Your task to perform on an android device: Open calendar and show me the third week of next month Image 0: 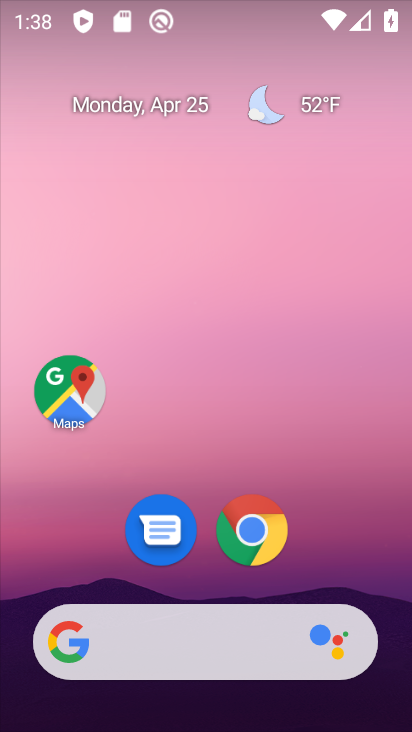
Step 0: drag from (380, 527) to (402, 128)
Your task to perform on an android device: Open calendar and show me the third week of next month Image 1: 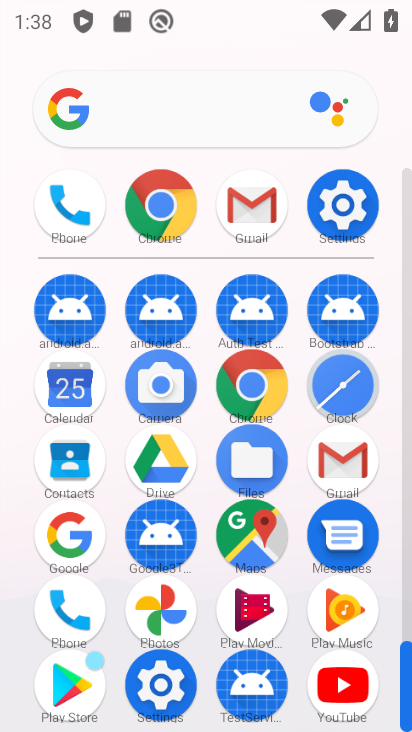
Step 1: click (79, 394)
Your task to perform on an android device: Open calendar and show me the third week of next month Image 2: 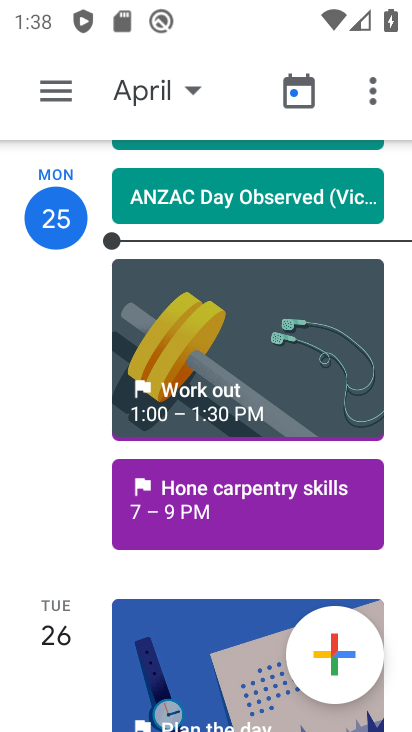
Step 2: click (161, 94)
Your task to perform on an android device: Open calendar and show me the third week of next month Image 3: 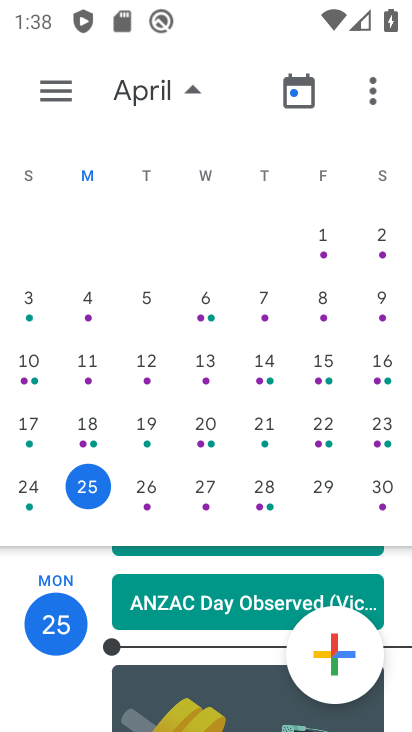
Step 3: drag from (361, 210) to (6, 213)
Your task to perform on an android device: Open calendar and show me the third week of next month Image 4: 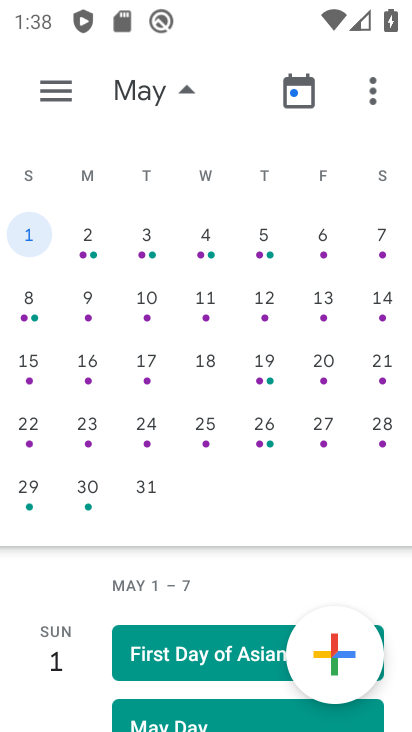
Step 4: click (30, 358)
Your task to perform on an android device: Open calendar and show me the third week of next month Image 5: 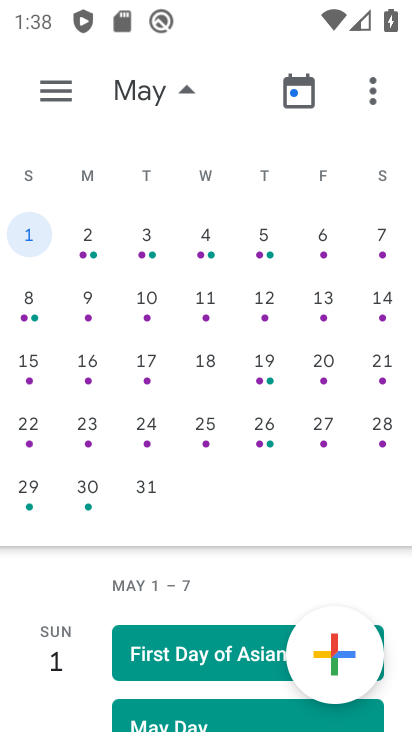
Step 5: click (38, 363)
Your task to perform on an android device: Open calendar and show me the third week of next month Image 6: 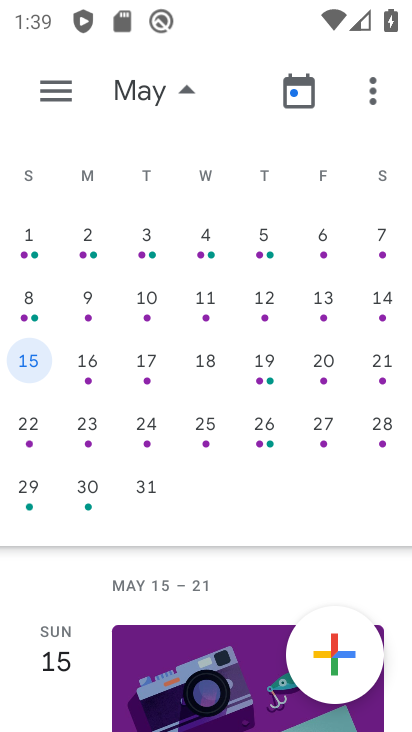
Step 6: task complete